Your task to perform on an android device: turn on wifi Image 0: 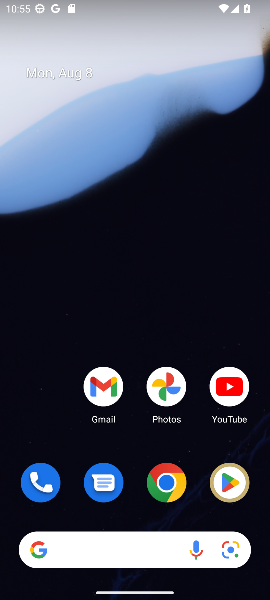
Step 0: drag from (129, 443) to (129, 21)
Your task to perform on an android device: turn on wifi Image 1: 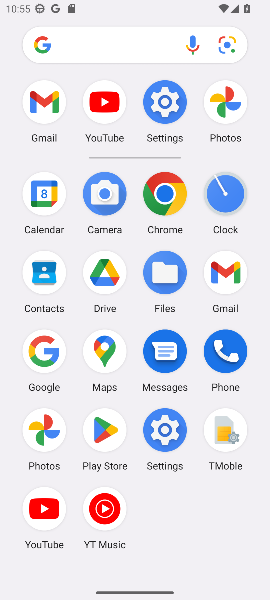
Step 1: click (155, 440)
Your task to perform on an android device: turn on wifi Image 2: 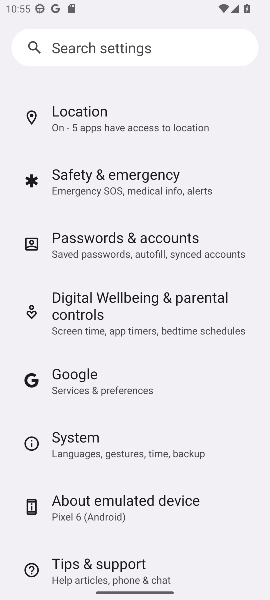
Step 2: drag from (123, 133) to (177, 441)
Your task to perform on an android device: turn on wifi Image 3: 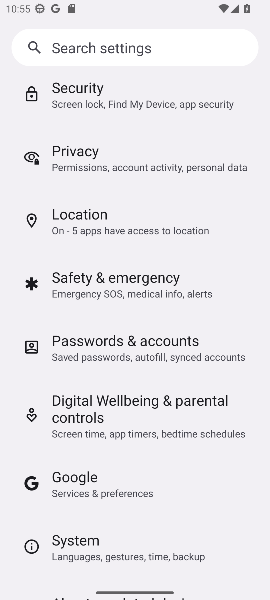
Step 3: drag from (161, 232) to (172, 593)
Your task to perform on an android device: turn on wifi Image 4: 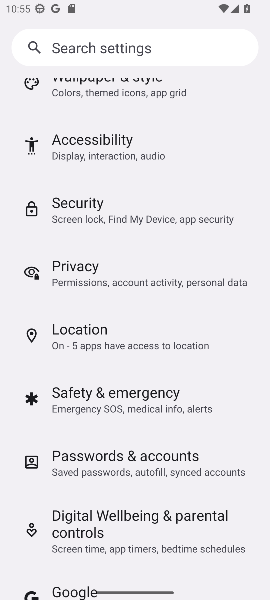
Step 4: drag from (135, 147) to (181, 501)
Your task to perform on an android device: turn on wifi Image 5: 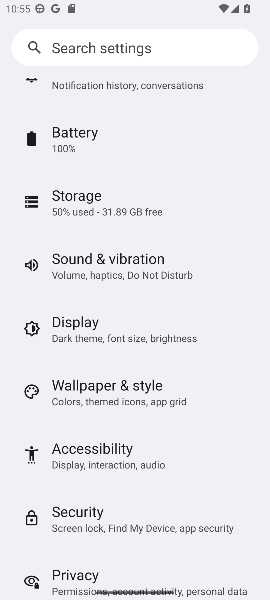
Step 5: drag from (157, 88) to (180, 465)
Your task to perform on an android device: turn on wifi Image 6: 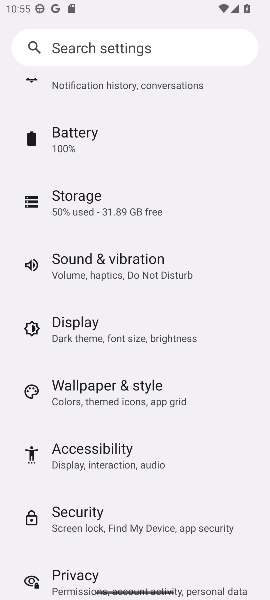
Step 6: drag from (138, 220) to (144, 546)
Your task to perform on an android device: turn on wifi Image 7: 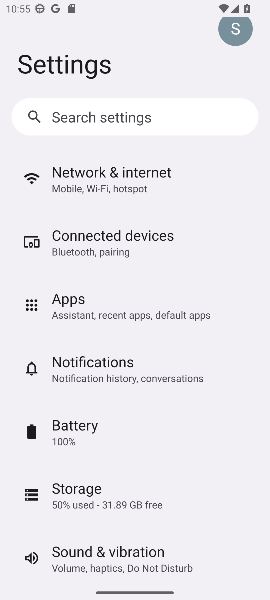
Step 7: click (143, 188)
Your task to perform on an android device: turn on wifi Image 8: 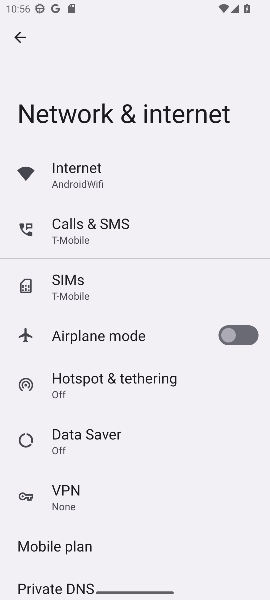
Step 8: click (75, 179)
Your task to perform on an android device: turn on wifi Image 9: 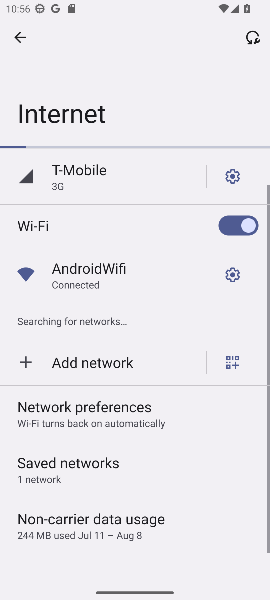
Step 9: task complete